Your task to perform on an android device: empty trash in google photos Image 0: 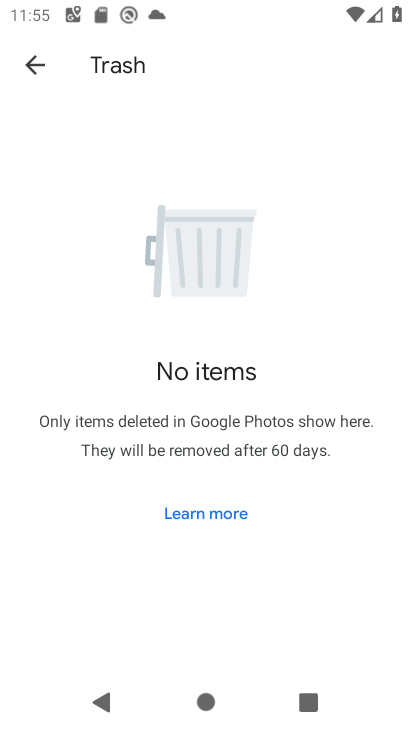
Step 0: task complete